Your task to perform on an android device: turn off notifications settings in the gmail app Image 0: 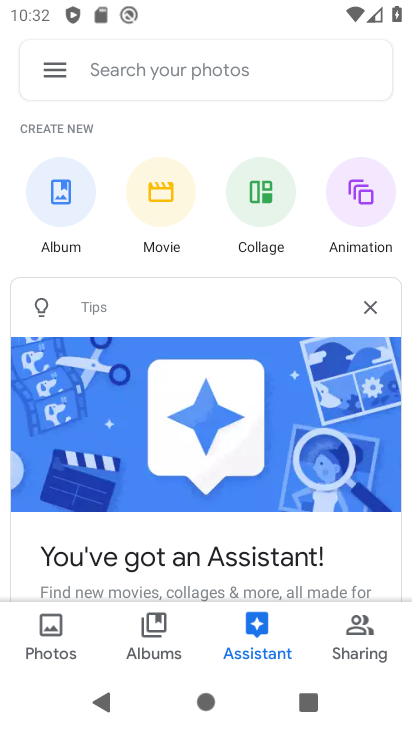
Step 0: press home button
Your task to perform on an android device: turn off notifications settings in the gmail app Image 1: 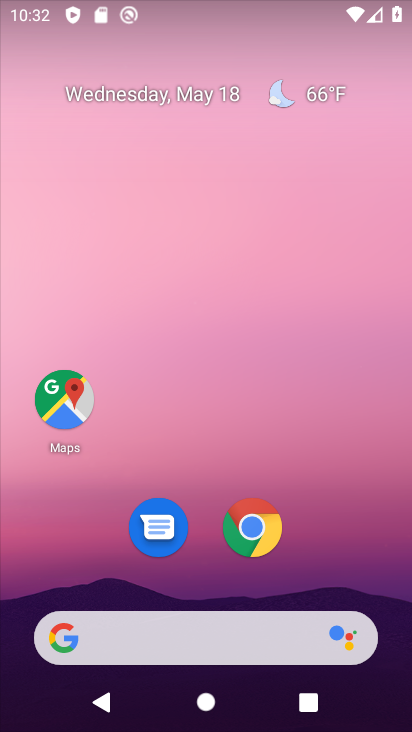
Step 1: drag from (331, 577) to (277, 315)
Your task to perform on an android device: turn off notifications settings in the gmail app Image 2: 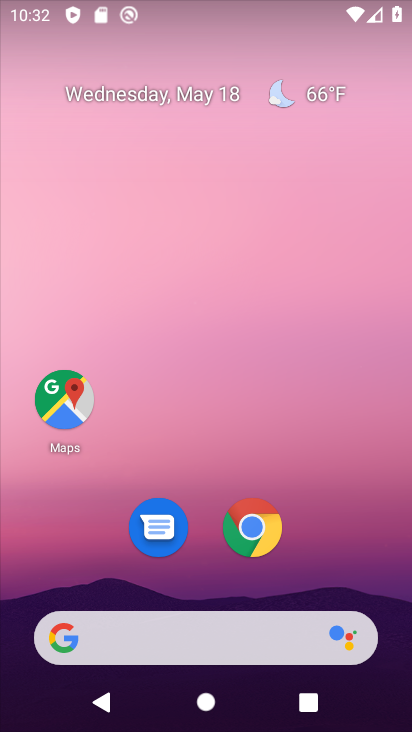
Step 2: drag from (323, 578) to (245, 242)
Your task to perform on an android device: turn off notifications settings in the gmail app Image 3: 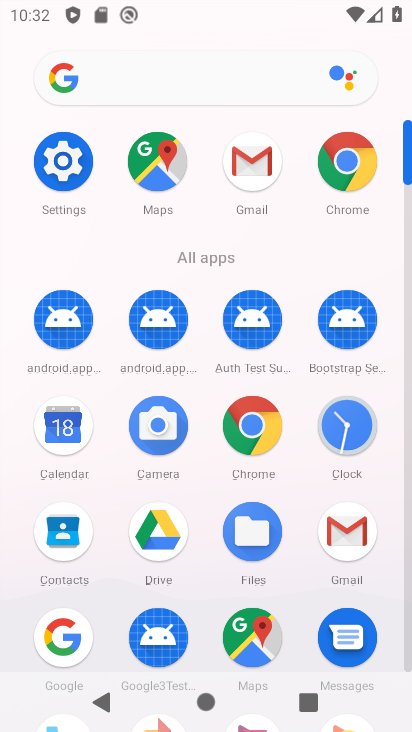
Step 3: click (257, 149)
Your task to perform on an android device: turn off notifications settings in the gmail app Image 4: 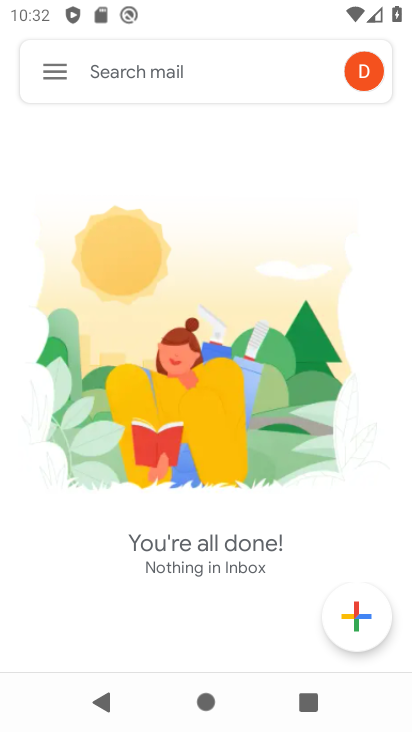
Step 4: click (51, 80)
Your task to perform on an android device: turn off notifications settings in the gmail app Image 5: 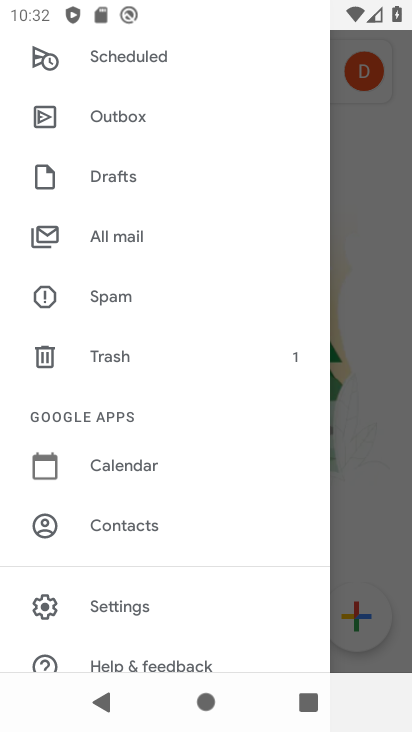
Step 5: click (191, 611)
Your task to perform on an android device: turn off notifications settings in the gmail app Image 6: 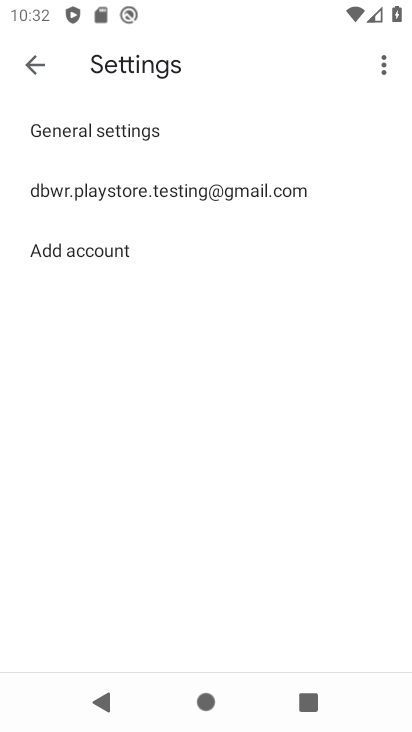
Step 6: click (344, 198)
Your task to perform on an android device: turn off notifications settings in the gmail app Image 7: 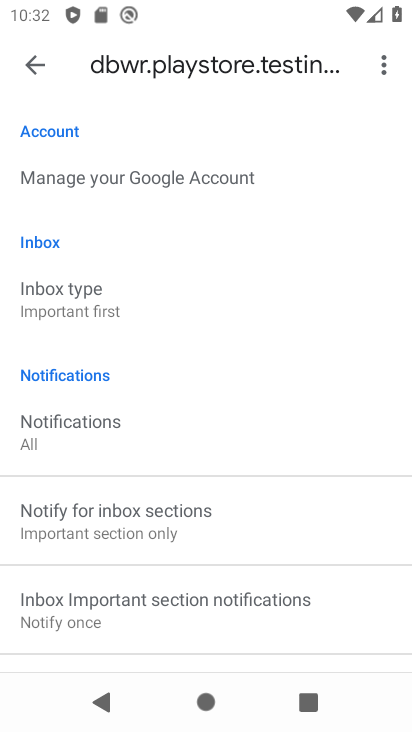
Step 7: drag from (321, 589) to (295, 228)
Your task to perform on an android device: turn off notifications settings in the gmail app Image 8: 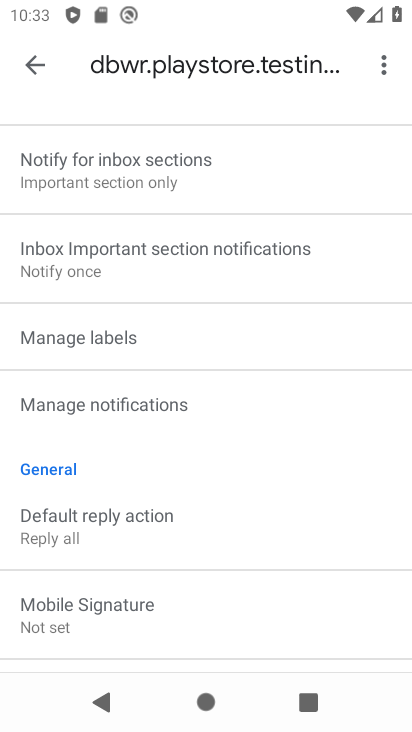
Step 8: click (292, 397)
Your task to perform on an android device: turn off notifications settings in the gmail app Image 9: 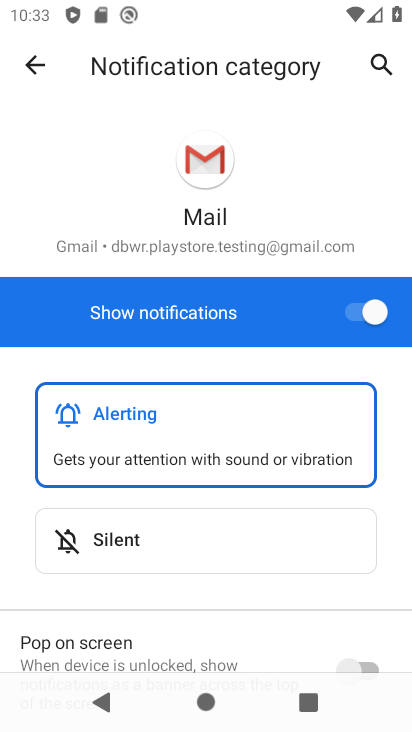
Step 9: drag from (398, 559) to (364, 394)
Your task to perform on an android device: turn off notifications settings in the gmail app Image 10: 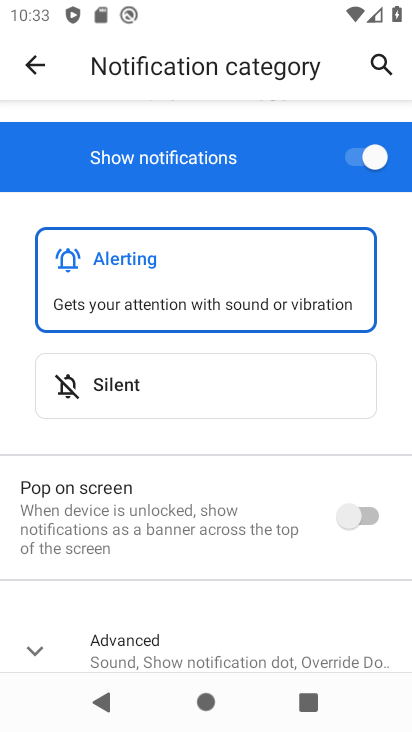
Step 10: click (373, 151)
Your task to perform on an android device: turn off notifications settings in the gmail app Image 11: 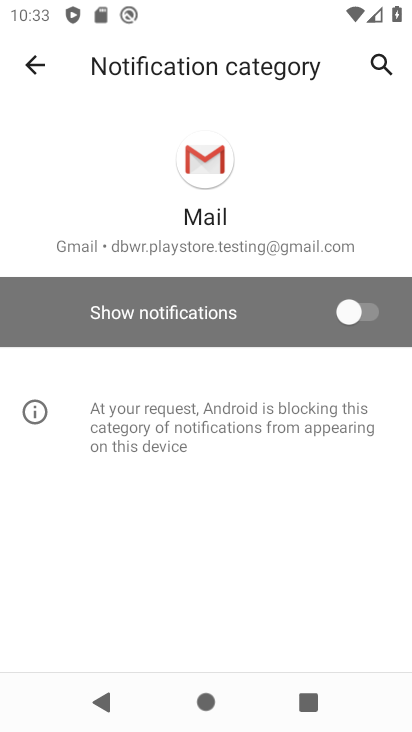
Step 11: task complete